Your task to perform on an android device: Add "razer blackwidow" to the cart on target.com Image 0: 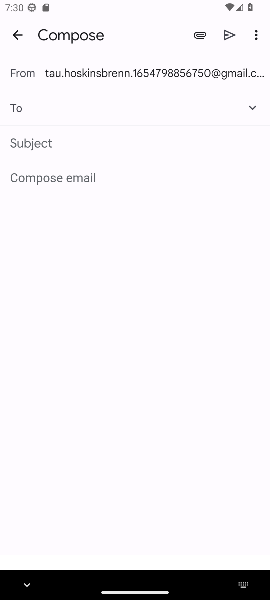
Step 0: press home button
Your task to perform on an android device: Add "razer blackwidow" to the cart on target.com Image 1: 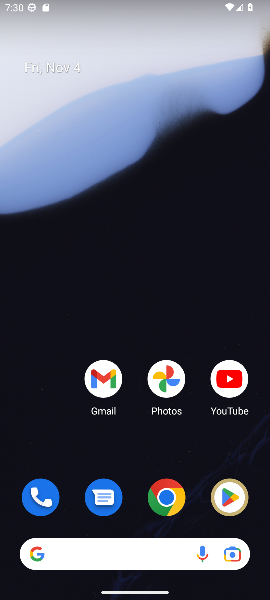
Step 1: click (169, 497)
Your task to perform on an android device: Add "razer blackwidow" to the cart on target.com Image 2: 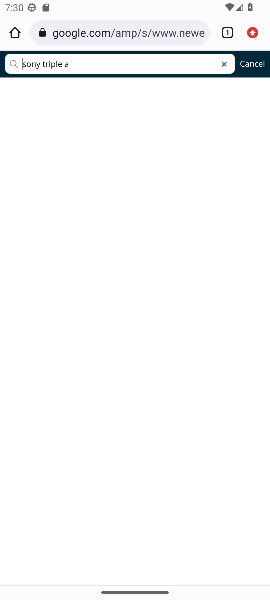
Step 2: click (99, 37)
Your task to perform on an android device: Add "razer blackwidow" to the cart on target.com Image 3: 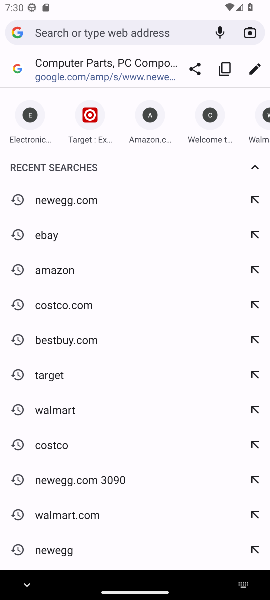
Step 3: click (80, 128)
Your task to perform on an android device: Add "razer blackwidow" to the cart on target.com Image 4: 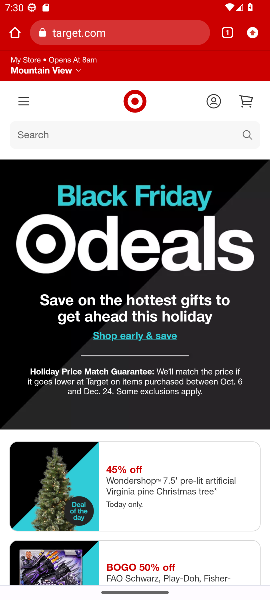
Step 4: click (248, 132)
Your task to perform on an android device: Add "razer blackwidow" to the cart on target.com Image 5: 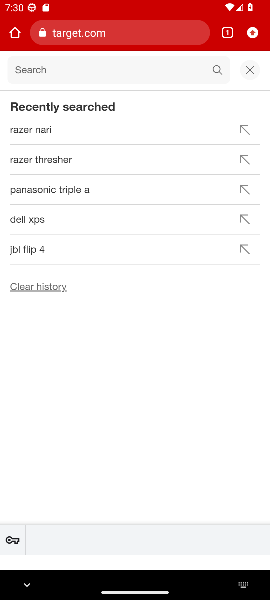
Step 5: type "razer blackwidow"
Your task to perform on an android device: Add "razer blackwidow" to the cart on target.com Image 6: 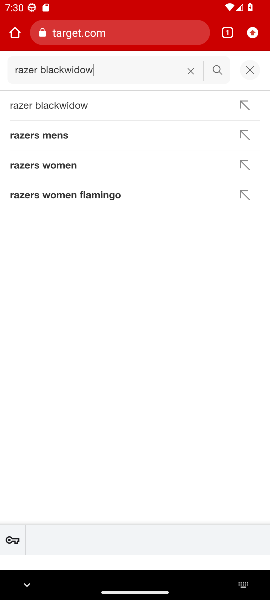
Step 6: click (56, 108)
Your task to perform on an android device: Add "razer blackwidow" to the cart on target.com Image 7: 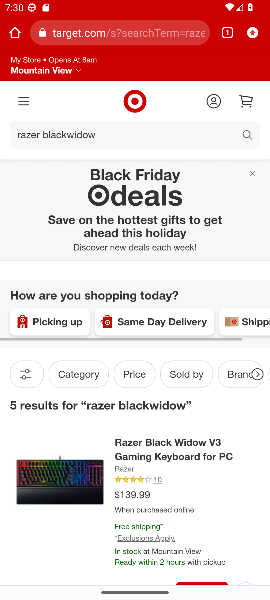
Step 7: click (94, 479)
Your task to perform on an android device: Add "razer blackwidow" to the cart on target.com Image 8: 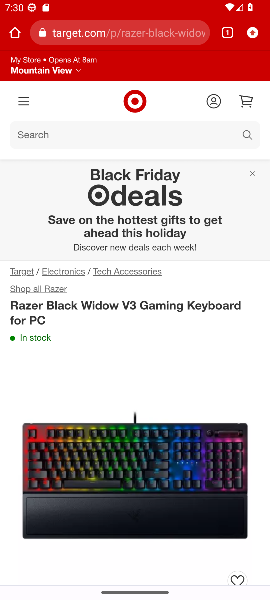
Step 8: drag from (129, 503) to (141, 209)
Your task to perform on an android device: Add "razer blackwidow" to the cart on target.com Image 9: 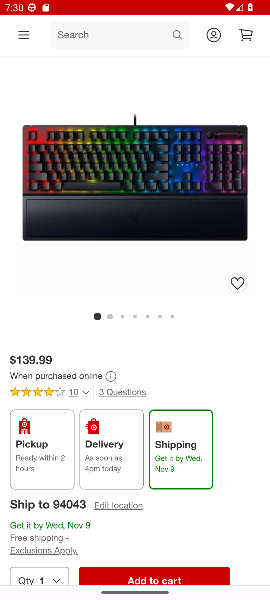
Step 9: drag from (127, 497) to (126, 299)
Your task to perform on an android device: Add "razer blackwidow" to the cart on target.com Image 10: 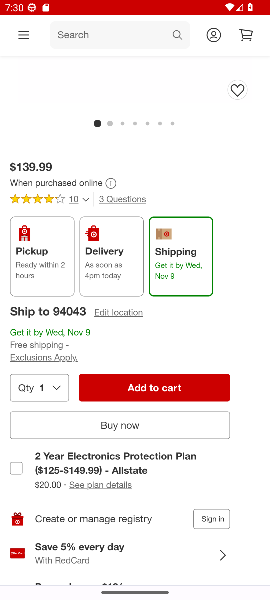
Step 10: click (147, 391)
Your task to perform on an android device: Add "razer blackwidow" to the cart on target.com Image 11: 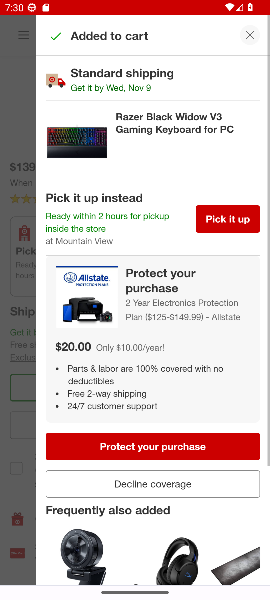
Step 11: task complete